Your task to perform on an android device: delete the emails in spam in the gmail app Image 0: 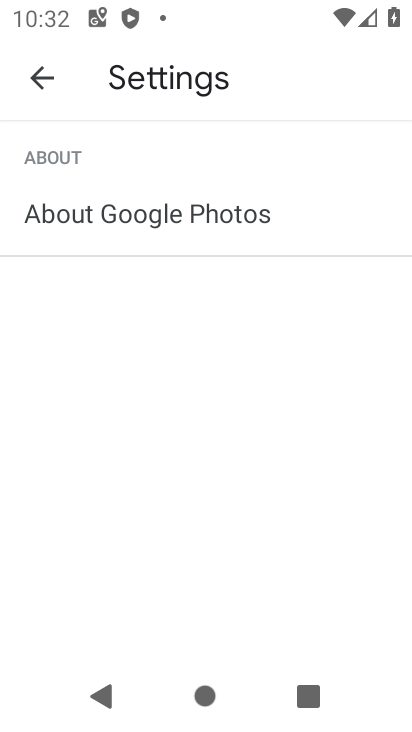
Step 0: press back button
Your task to perform on an android device: delete the emails in spam in the gmail app Image 1: 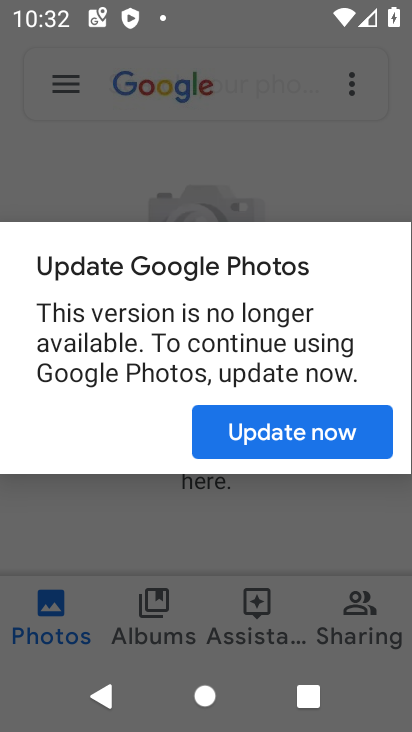
Step 1: press home button
Your task to perform on an android device: delete the emails in spam in the gmail app Image 2: 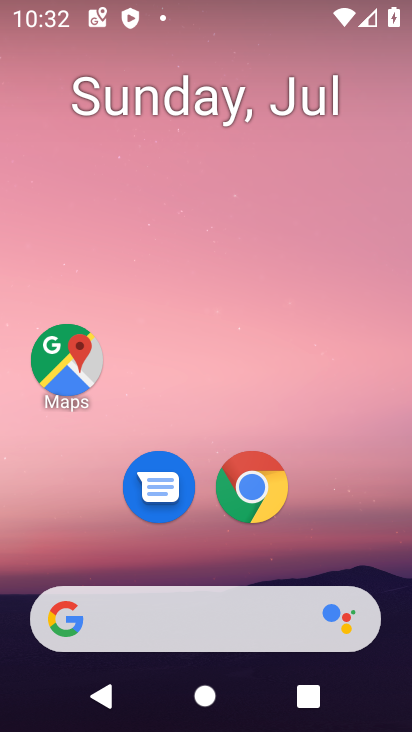
Step 2: drag from (164, 578) to (188, 117)
Your task to perform on an android device: delete the emails in spam in the gmail app Image 3: 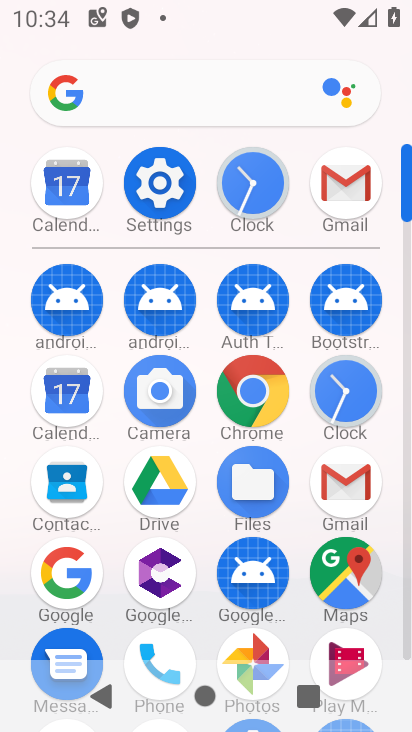
Step 3: click (350, 186)
Your task to perform on an android device: delete the emails in spam in the gmail app Image 4: 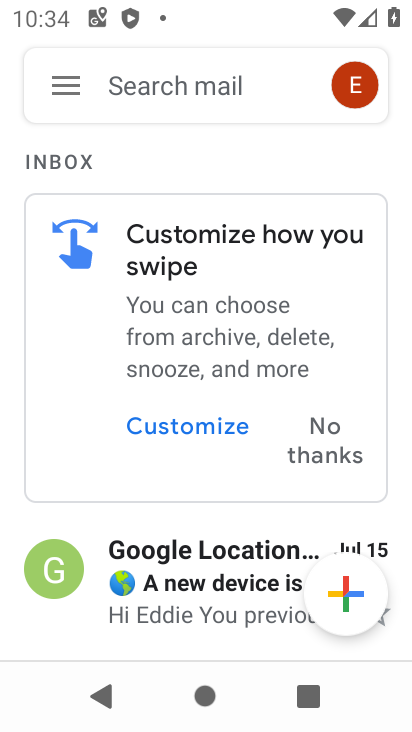
Step 4: drag from (208, 561) to (266, 131)
Your task to perform on an android device: delete the emails in spam in the gmail app Image 5: 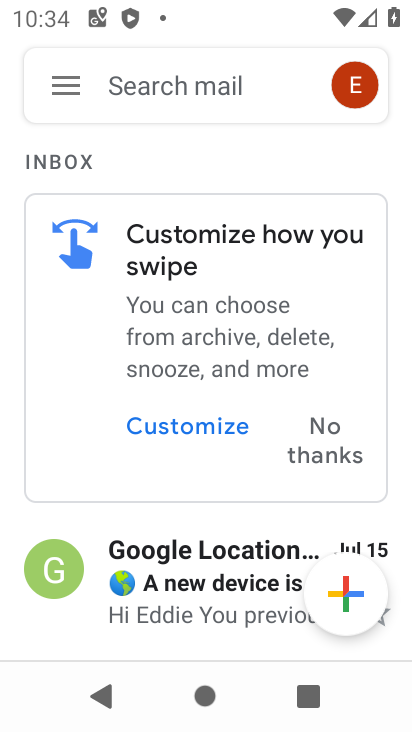
Step 5: click (73, 79)
Your task to perform on an android device: delete the emails in spam in the gmail app Image 6: 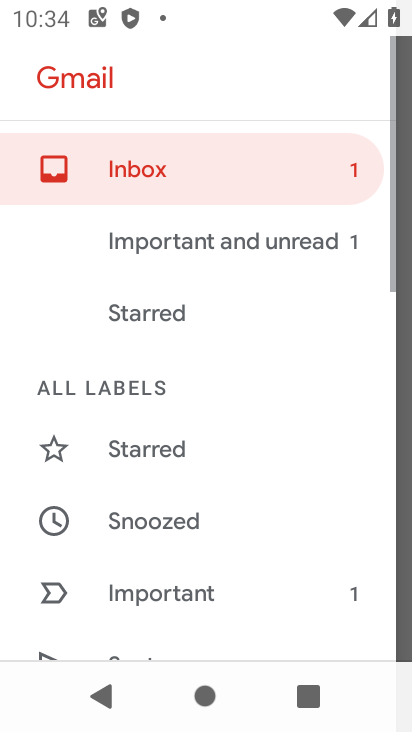
Step 6: drag from (161, 566) to (257, 93)
Your task to perform on an android device: delete the emails in spam in the gmail app Image 7: 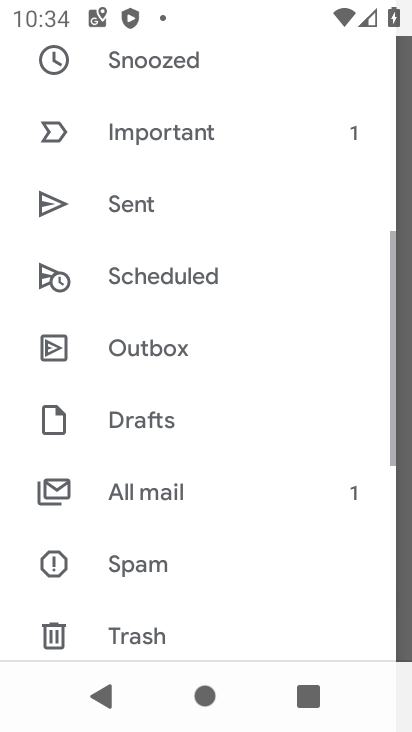
Step 7: click (124, 470)
Your task to perform on an android device: delete the emails in spam in the gmail app Image 8: 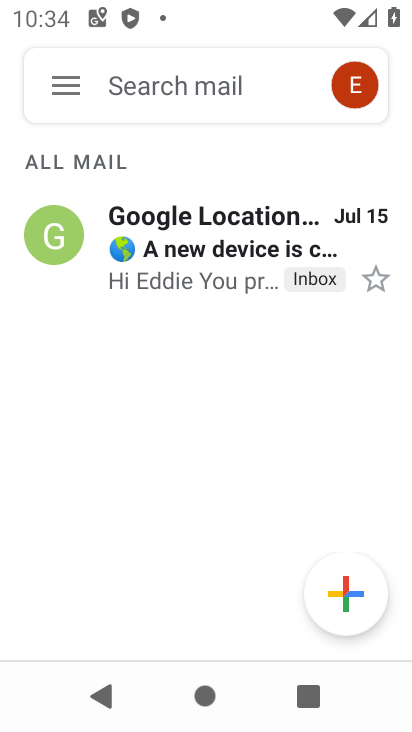
Step 8: click (222, 240)
Your task to perform on an android device: delete the emails in spam in the gmail app Image 9: 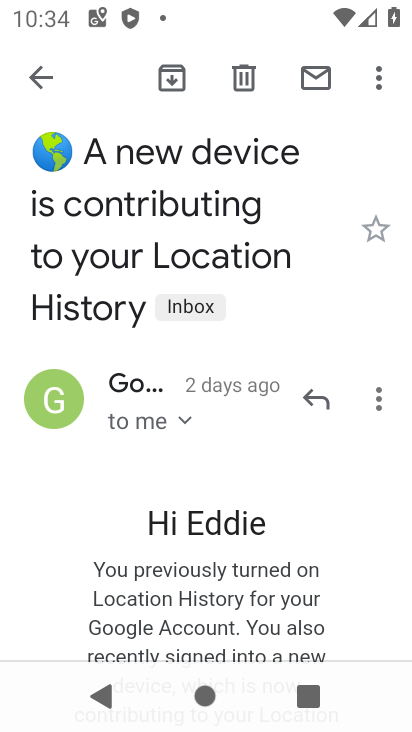
Step 9: click (29, 61)
Your task to perform on an android device: delete the emails in spam in the gmail app Image 10: 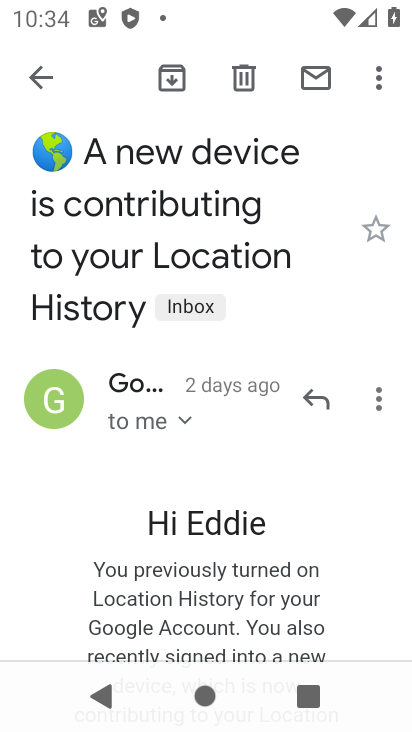
Step 10: click (49, 72)
Your task to perform on an android device: delete the emails in spam in the gmail app Image 11: 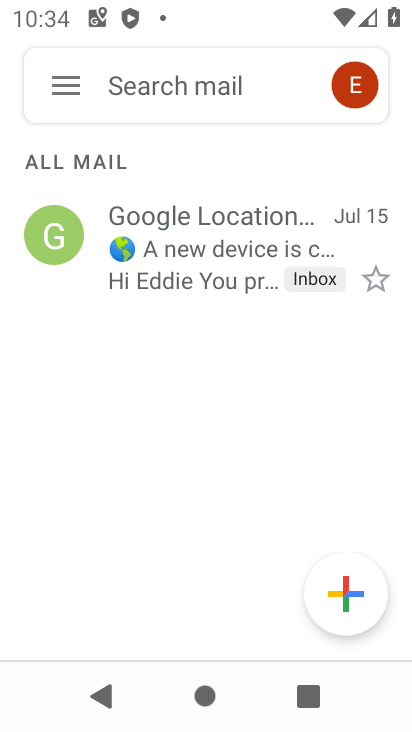
Step 11: click (223, 249)
Your task to perform on an android device: delete the emails in spam in the gmail app Image 12: 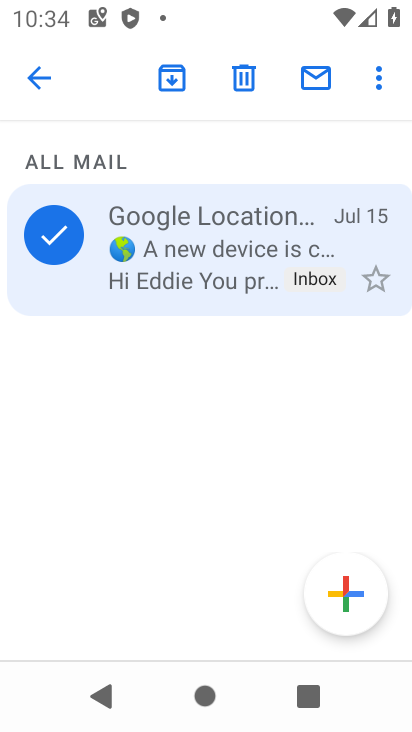
Step 12: click (245, 68)
Your task to perform on an android device: delete the emails in spam in the gmail app Image 13: 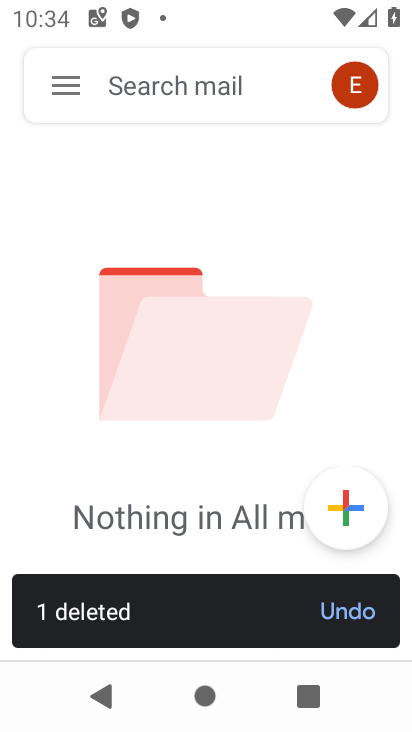
Step 13: task complete